Your task to perform on an android device: open chrome privacy settings Image 0: 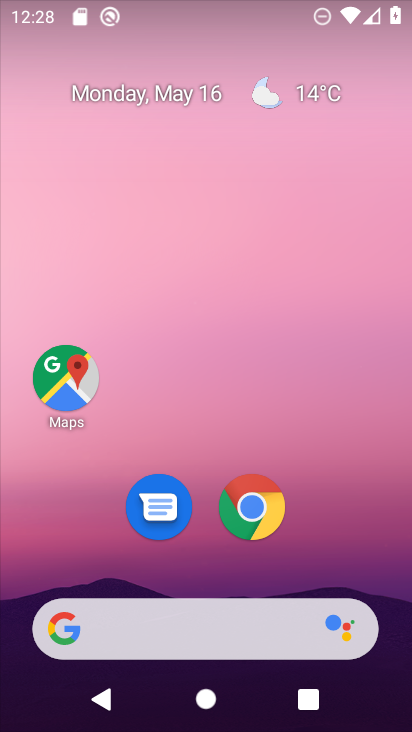
Step 0: click (236, 500)
Your task to perform on an android device: open chrome privacy settings Image 1: 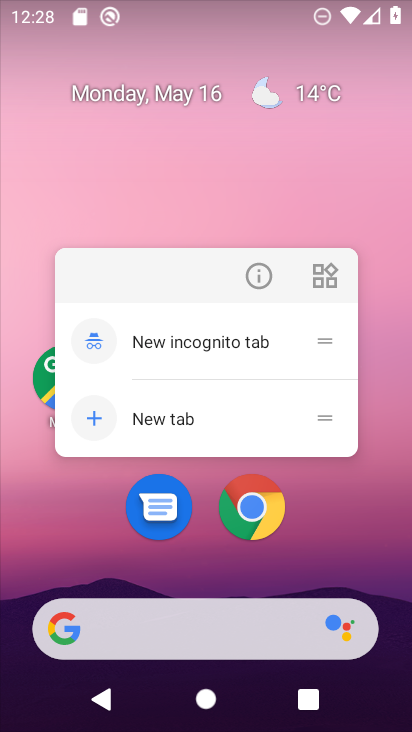
Step 1: click (253, 502)
Your task to perform on an android device: open chrome privacy settings Image 2: 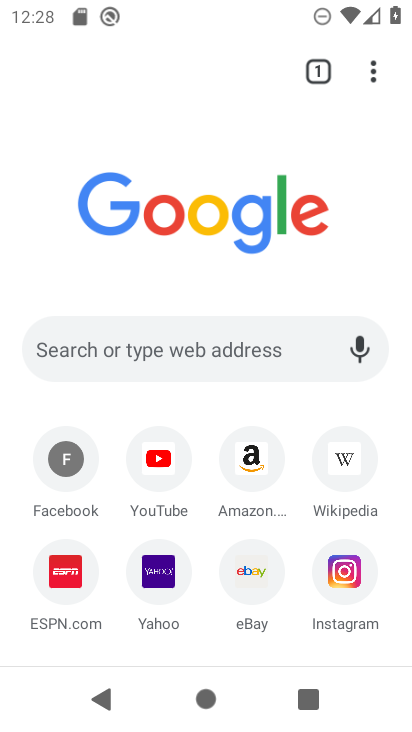
Step 2: drag from (376, 64) to (234, 502)
Your task to perform on an android device: open chrome privacy settings Image 3: 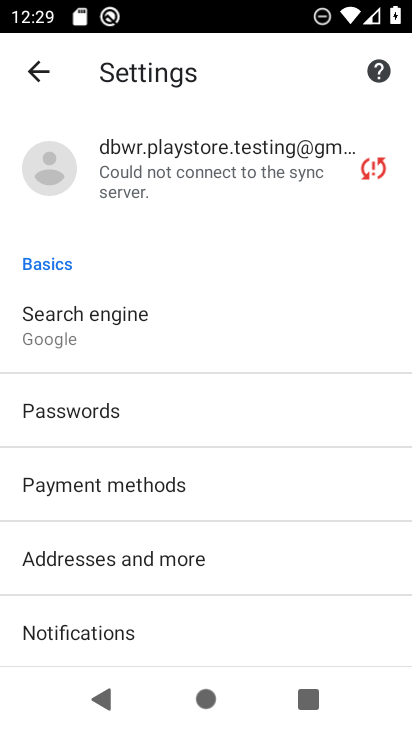
Step 3: drag from (199, 599) to (221, 264)
Your task to perform on an android device: open chrome privacy settings Image 4: 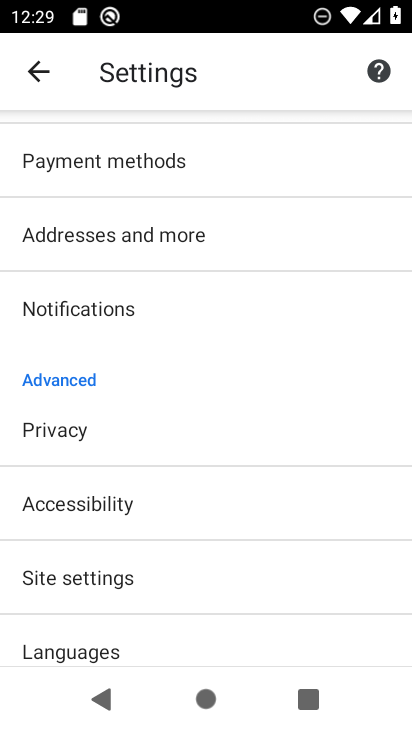
Step 4: click (154, 424)
Your task to perform on an android device: open chrome privacy settings Image 5: 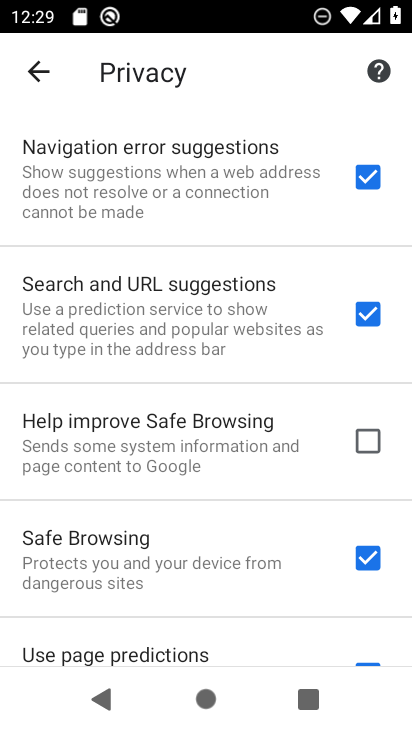
Step 5: task complete